Your task to perform on an android device: Open network settings Image 0: 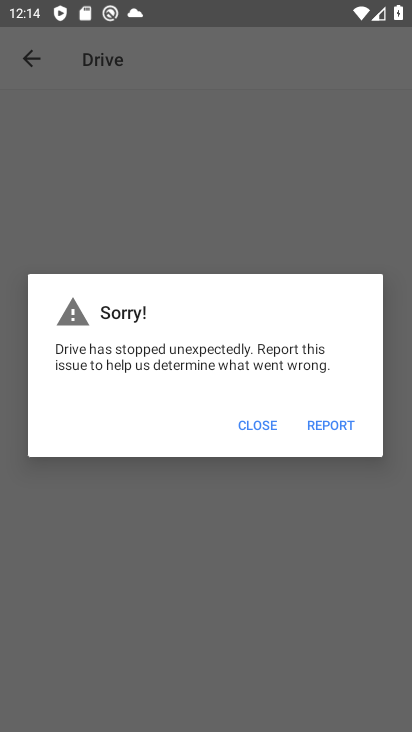
Step 0: press home button
Your task to perform on an android device: Open network settings Image 1: 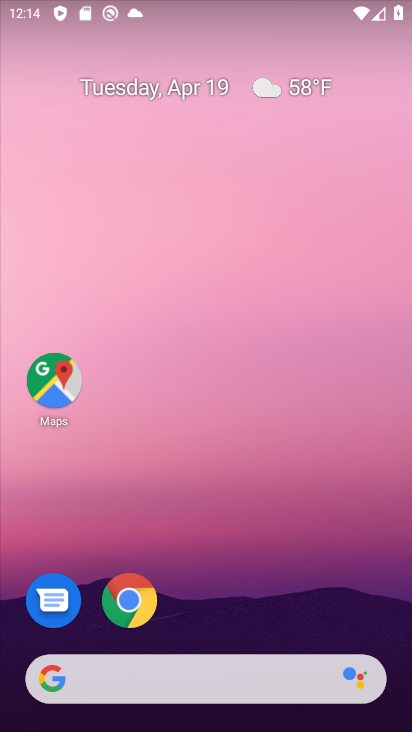
Step 1: drag from (276, 573) to (227, 221)
Your task to perform on an android device: Open network settings Image 2: 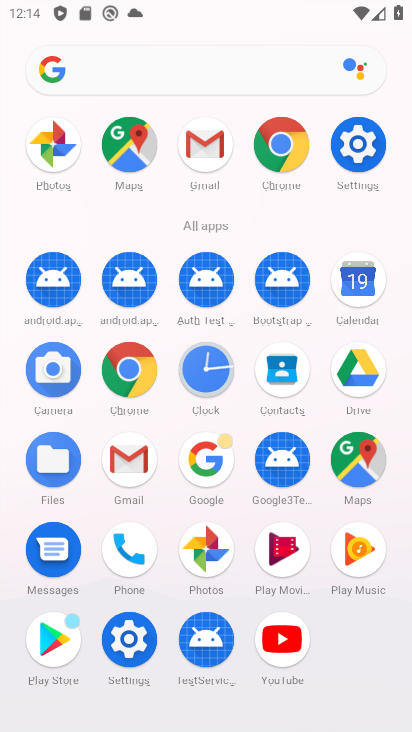
Step 2: click (370, 157)
Your task to perform on an android device: Open network settings Image 3: 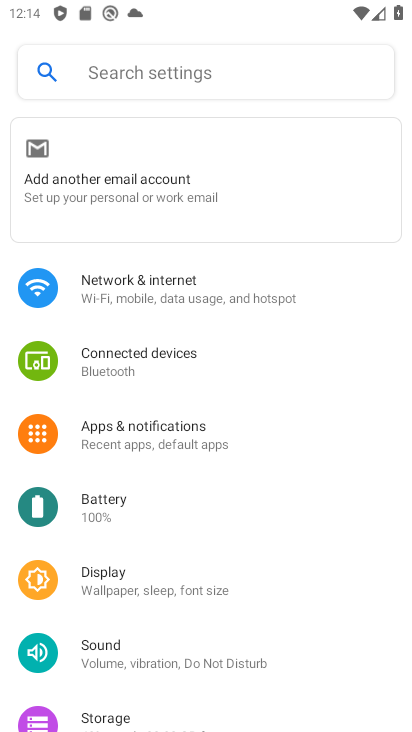
Step 3: click (277, 285)
Your task to perform on an android device: Open network settings Image 4: 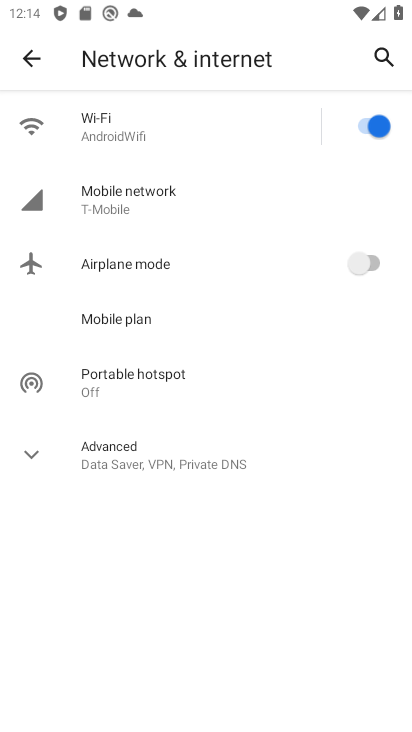
Step 4: task complete